Your task to perform on an android device: move a message to another label in the gmail app Image 0: 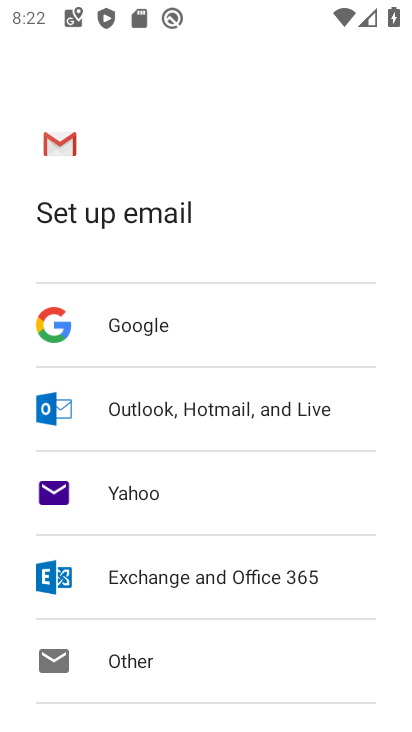
Step 0: press home button
Your task to perform on an android device: move a message to another label in the gmail app Image 1: 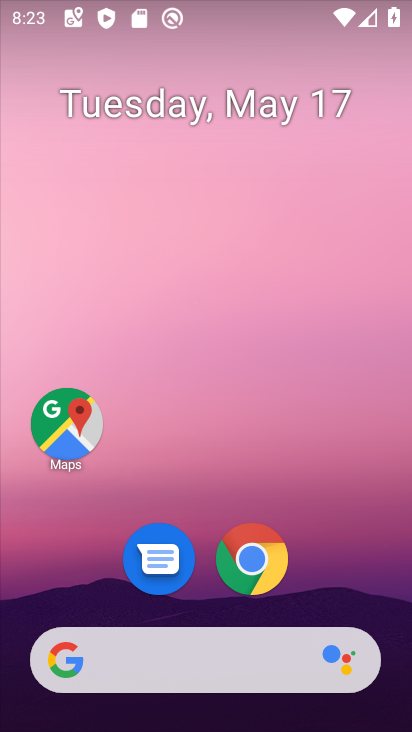
Step 1: drag from (227, 678) to (238, 112)
Your task to perform on an android device: move a message to another label in the gmail app Image 2: 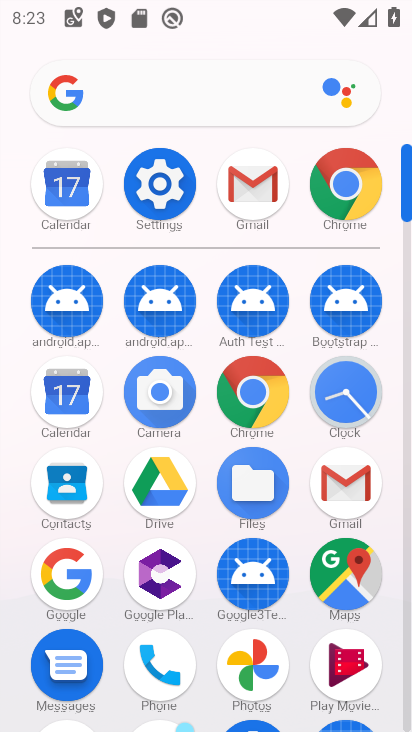
Step 2: click (248, 175)
Your task to perform on an android device: move a message to another label in the gmail app Image 3: 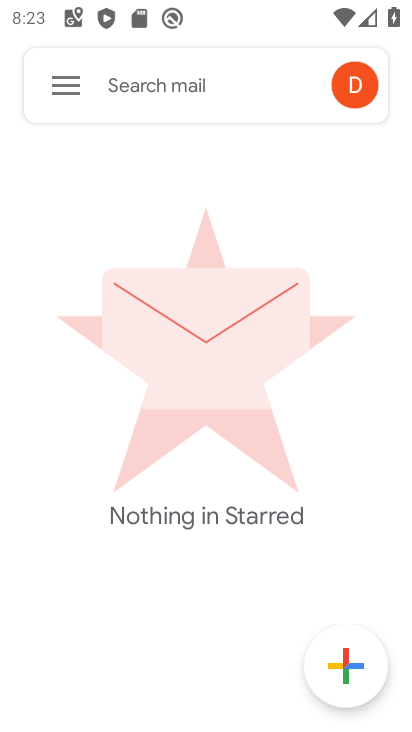
Step 3: click (53, 93)
Your task to perform on an android device: move a message to another label in the gmail app Image 4: 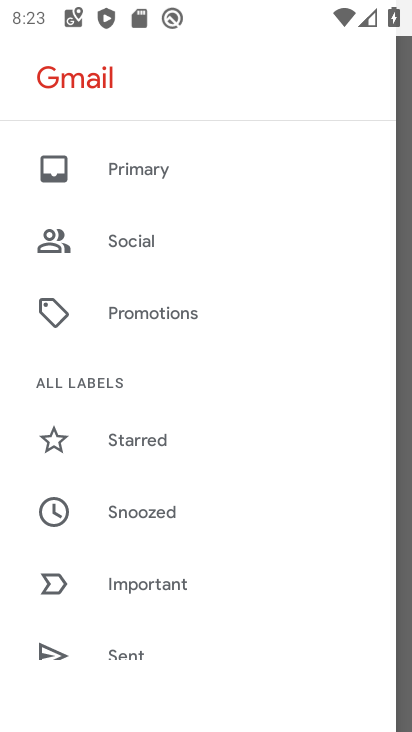
Step 4: drag from (263, 251) to (263, 636)
Your task to perform on an android device: move a message to another label in the gmail app Image 5: 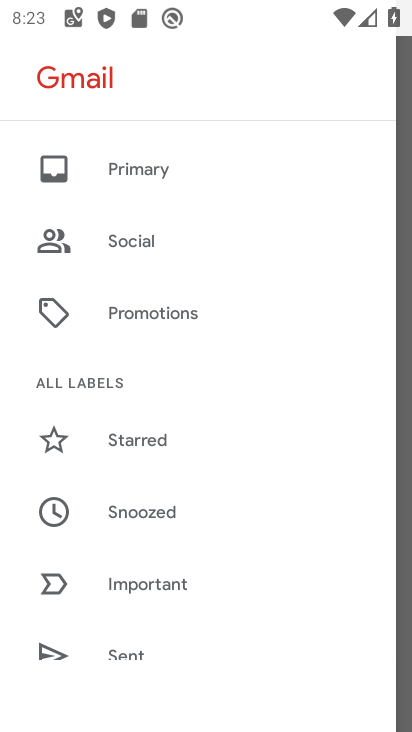
Step 5: drag from (234, 617) to (207, 153)
Your task to perform on an android device: move a message to another label in the gmail app Image 6: 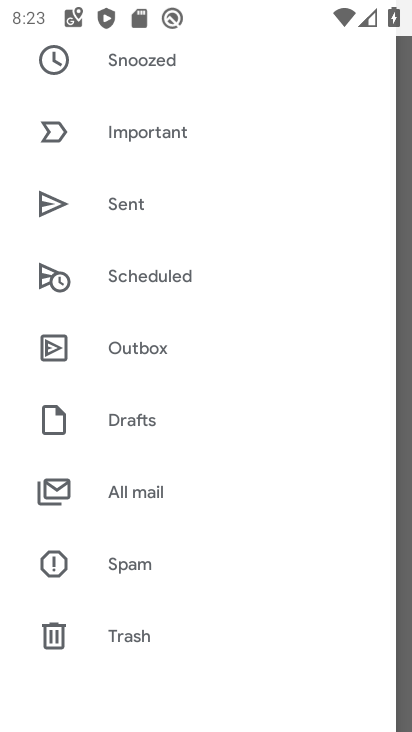
Step 6: click (137, 502)
Your task to perform on an android device: move a message to another label in the gmail app Image 7: 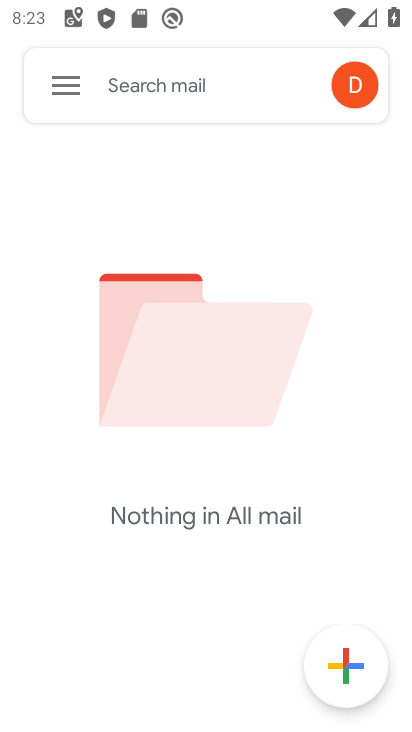
Step 7: task complete